Your task to perform on an android device: What's the latest news in astrophysics? Image 0: 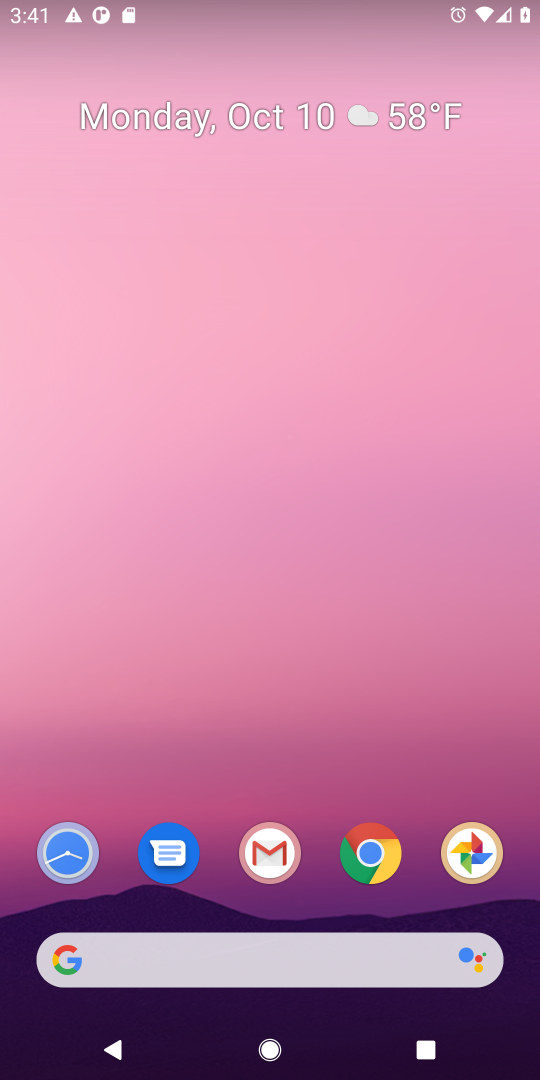
Step 0: click (371, 857)
Your task to perform on an android device: What's the latest news in astrophysics? Image 1: 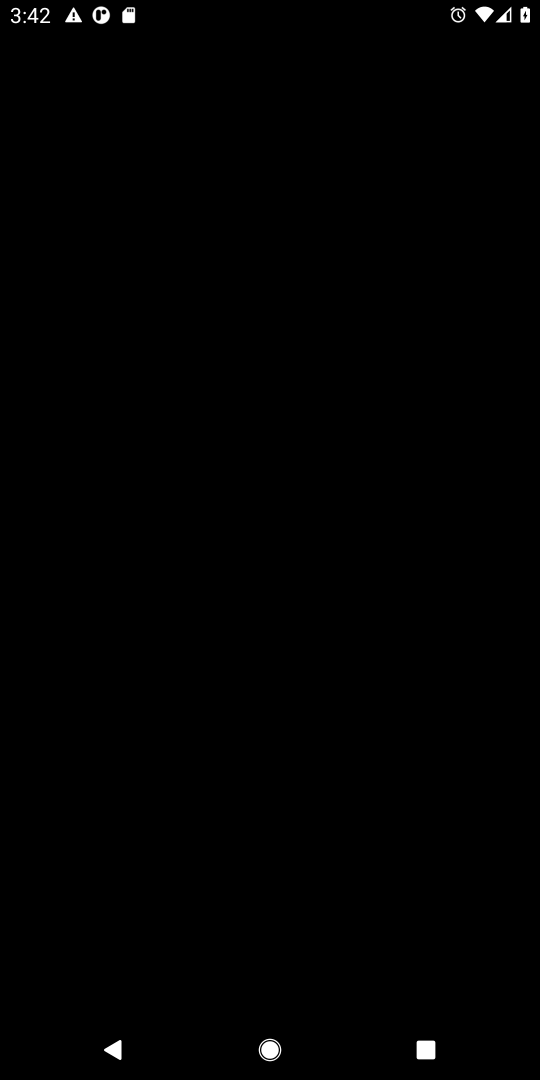
Step 1: press home button
Your task to perform on an android device: What's the latest news in astrophysics? Image 2: 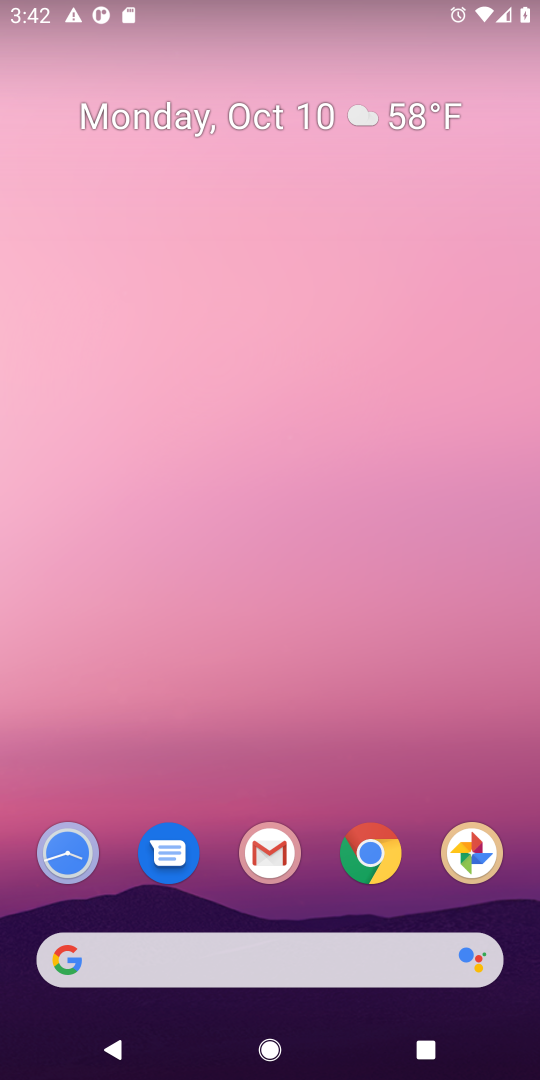
Step 2: drag from (318, 779) to (446, 55)
Your task to perform on an android device: What's the latest news in astrophysics? Image 3: 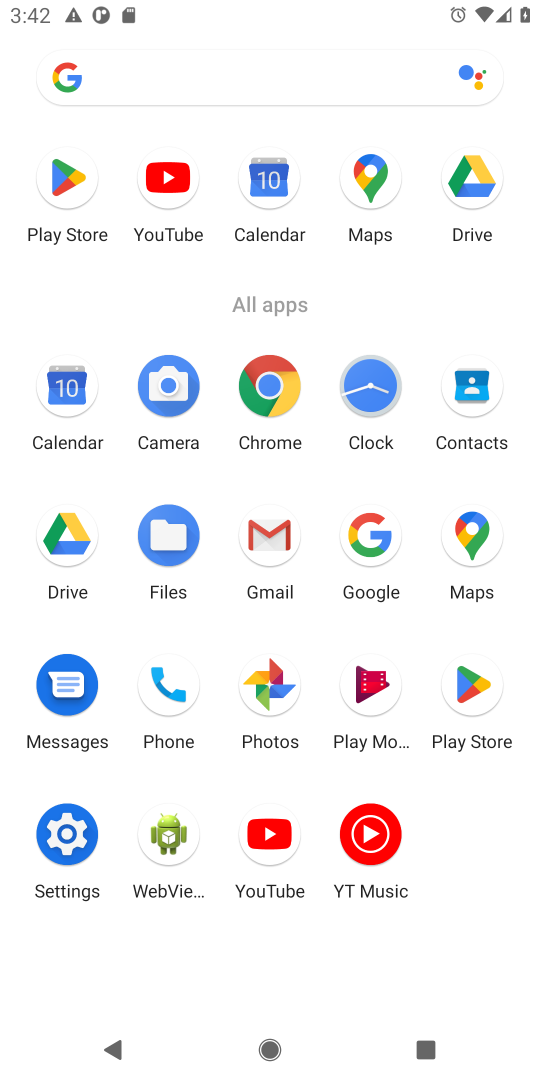
Step 3: click (278, 383)
Your task to perform on an android device: What's the latest news in astrophysics? Image 4: 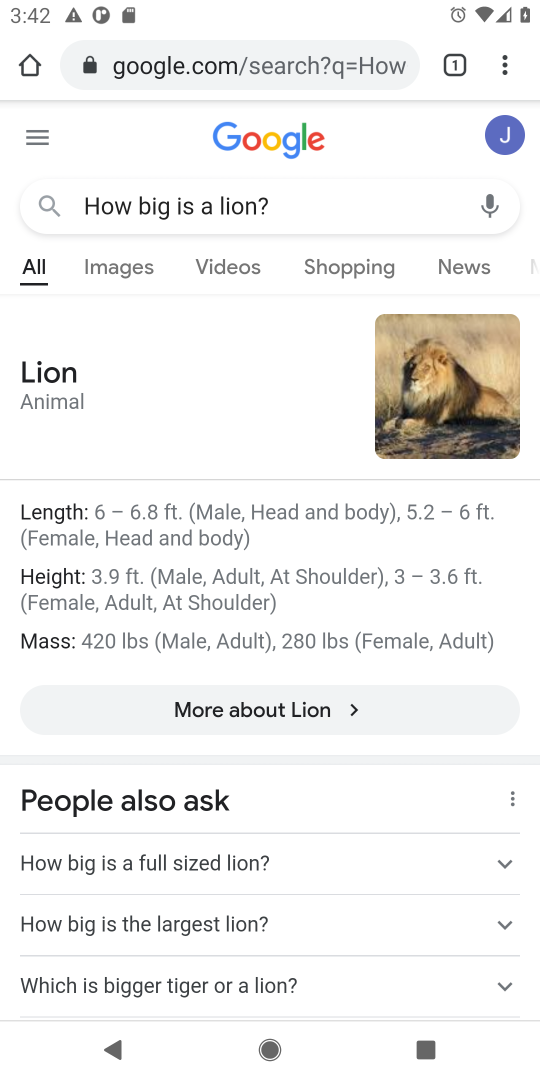
Step 4: click (274, 74)
Your task to perform on an android device: What's the latest news in astrophysics? Image 5: 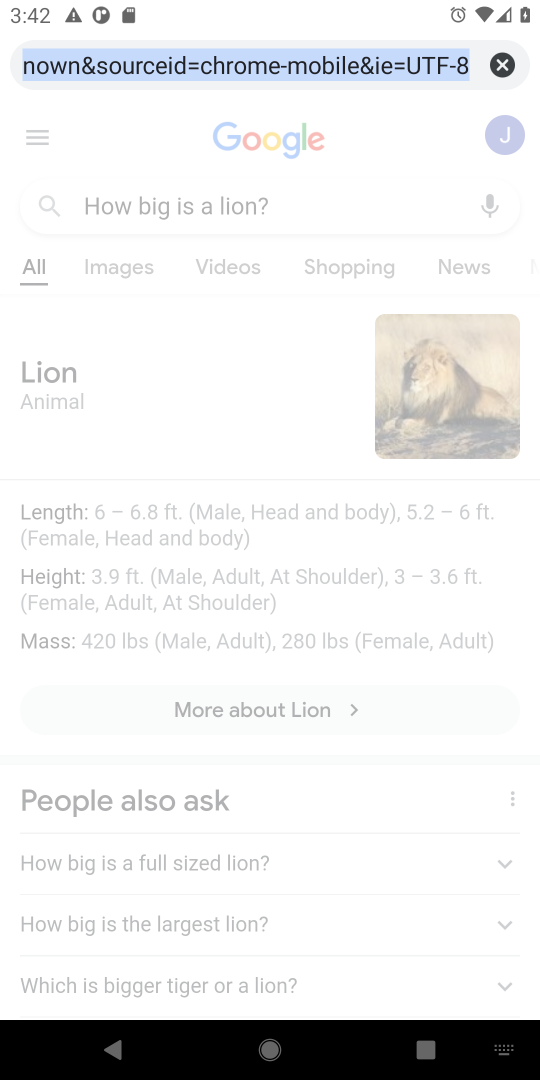
Step 5: click (500, 63)
Your task to perform on an android device: What's the latest news in astrophysics? Image 6: 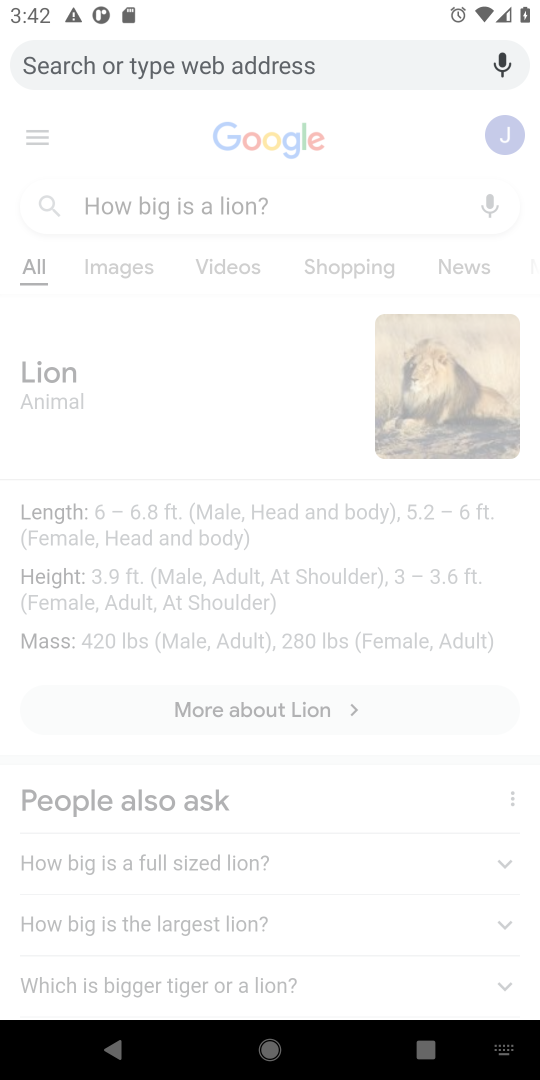
Step 6: type "What's the latest news in astrophysics?"
Your task to perform on an android device: What's the latest news in astrophysics? Image 7: 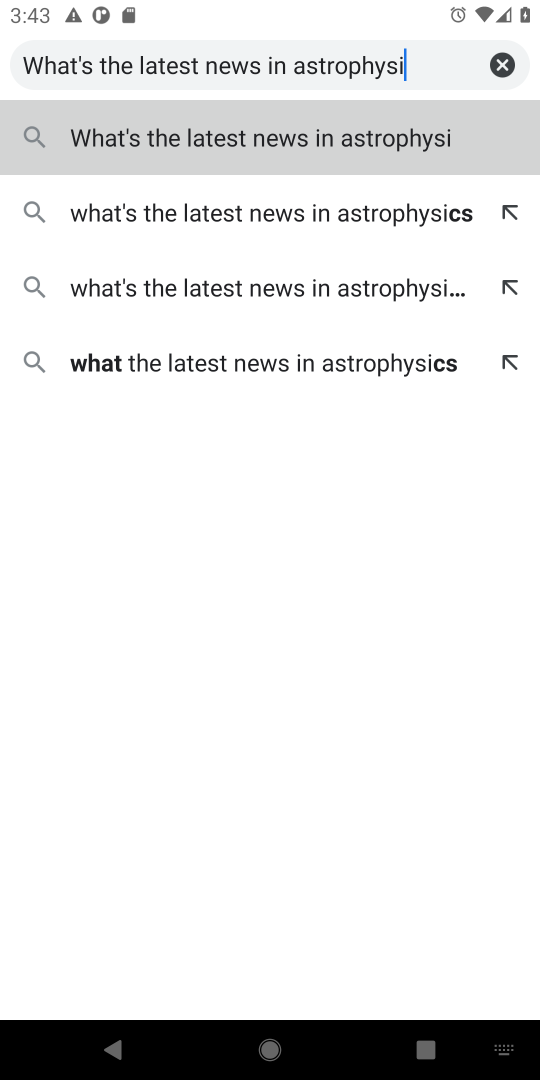
Step 7: click (279, 131)
Your task to perform on an android device: What's the latest news in astrophysics? Image 8: 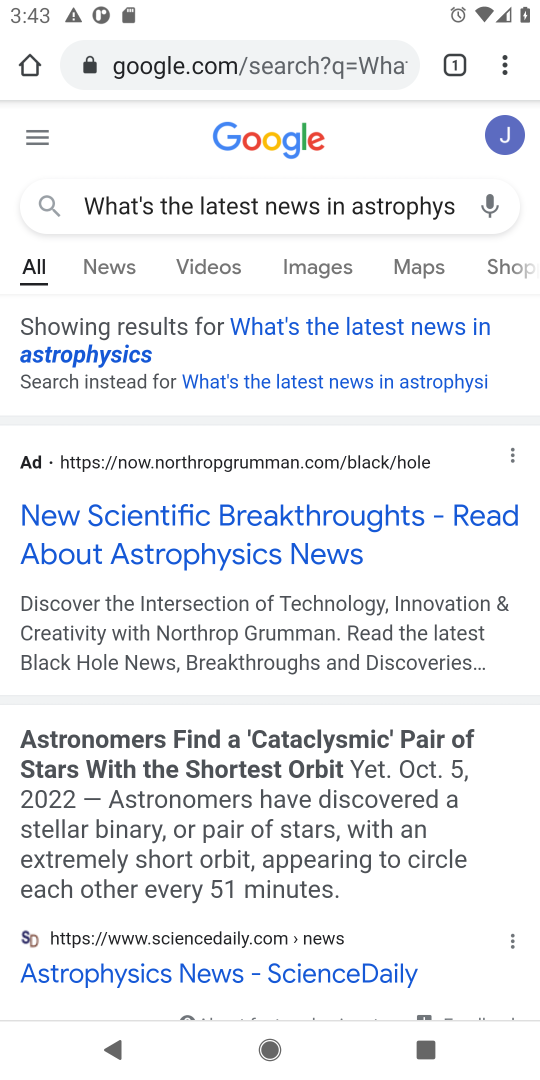
Step 8: task complete